Your task to perform on an android device: turn off improve location accuracy Image 0: 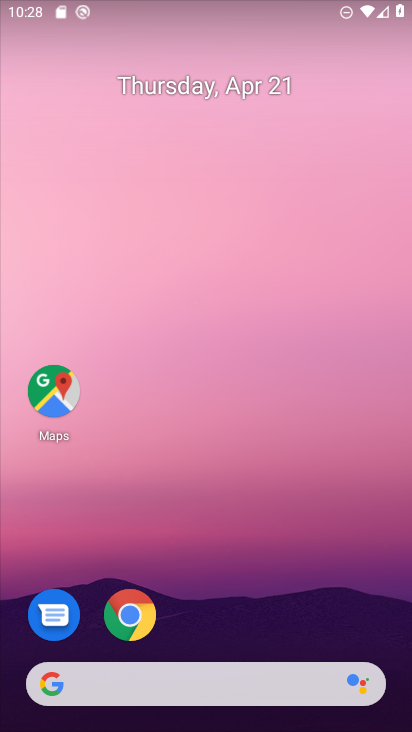
Step 0: drag from (211, 671) to (199, 190)
Your task to perform on an android device: turn off improve location accuracy Image 1: 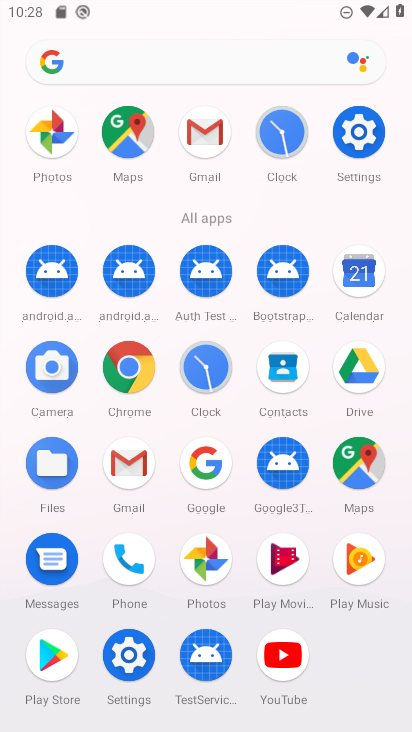
Step 1: click (362, 128)
Your task to perform on an android device: turn off improve location accuracy Image 2: 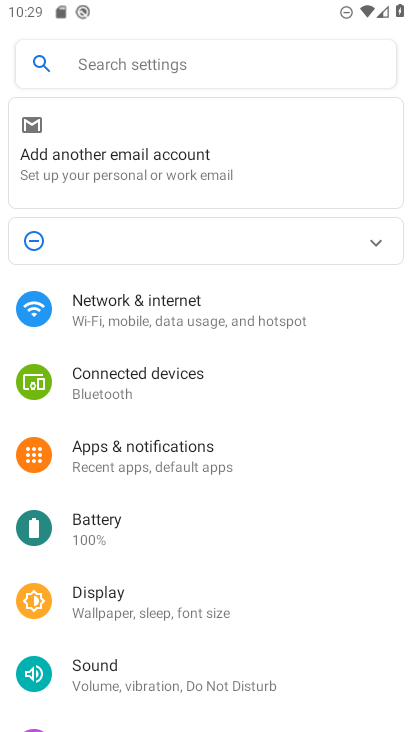
Step 2: drag from (155, 654) to (151, 323)
Your task to perform on an android device: turn off improve location accuracy Image 3: 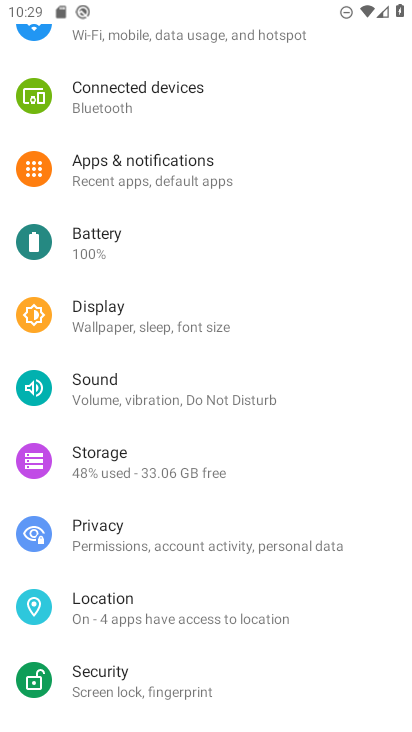
Step 3: click (121, 604)
Your task to perform on an android device: turn off improve location accuracy Image 4: 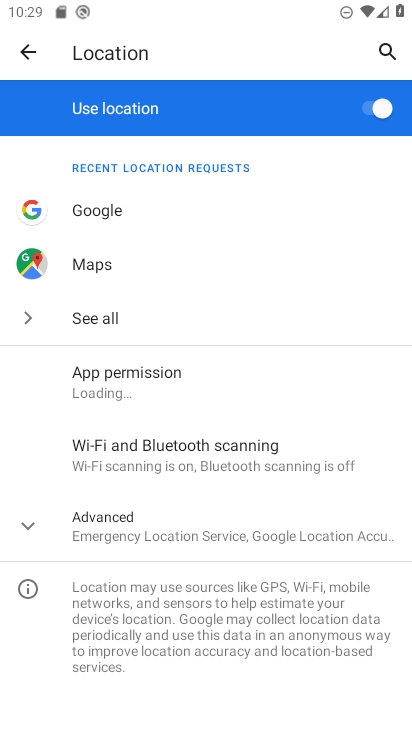
Step 4: click (126, 532)
Your task to perform on an android device: turn off improve location accuracy Image 5: 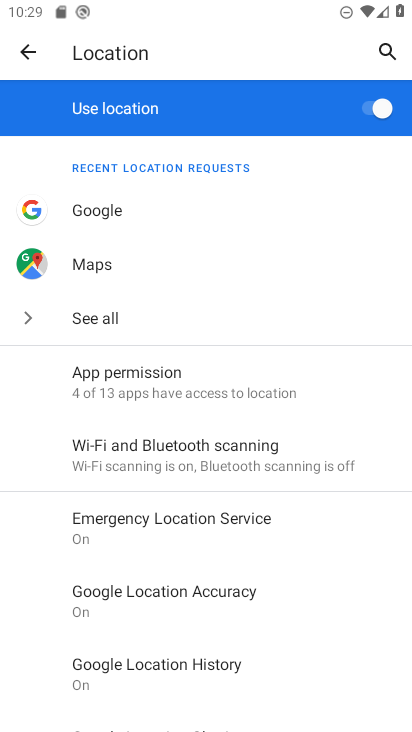
Step 5: click (176, 590)
Your task to perform on an android device: turn off improve location accuracy Image 6: 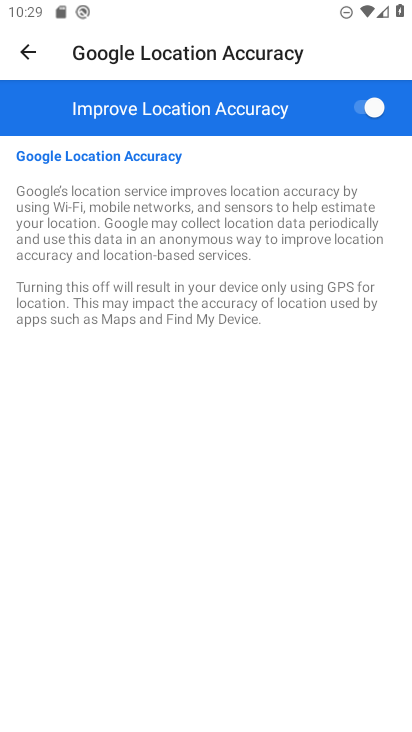
Step 6: click (360, 105)
Your task to perform on an android device: turn off improve location accuracy Image 7: 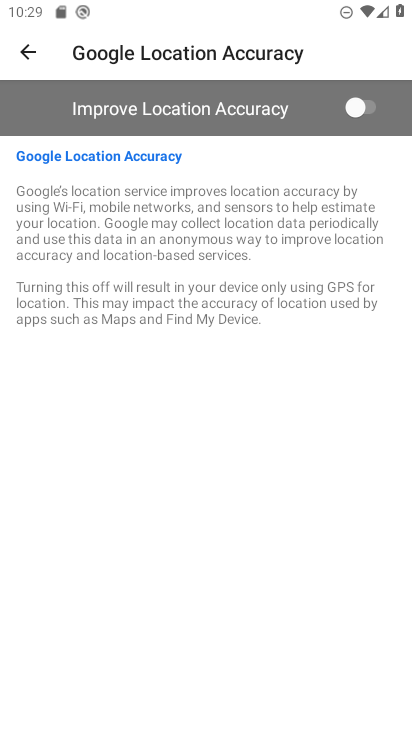
Step 7: task complete